Your task to perform on an android device: toggle airplane mode Image 0: 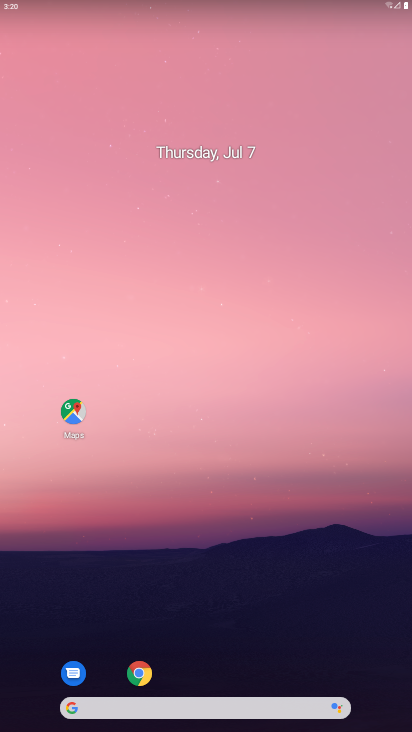
Step 0: drag from (246, 700) to (291, 0)
Your task to perform on an android device: toggle airplane mode Image 1: 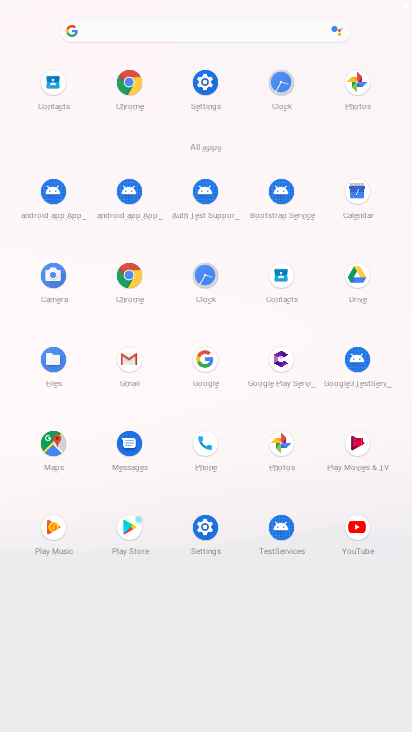
Step 1: click (196, 80)
Your task to perform on an android device: toggle airplane mode Image 2: 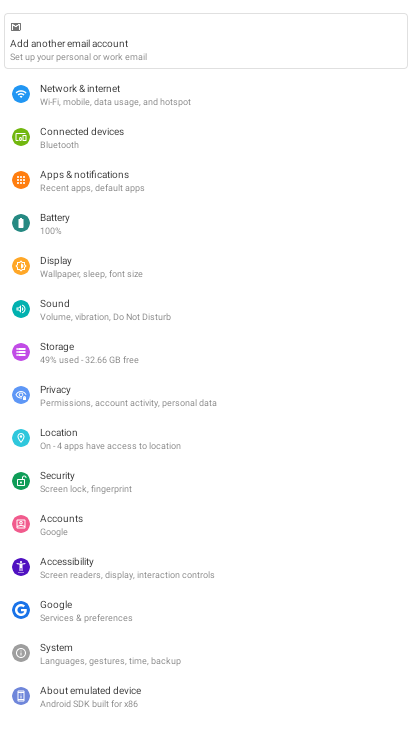
Step 2: click (119, 99)
Your task to perform on an android device: toggle airplane mode Image 3: 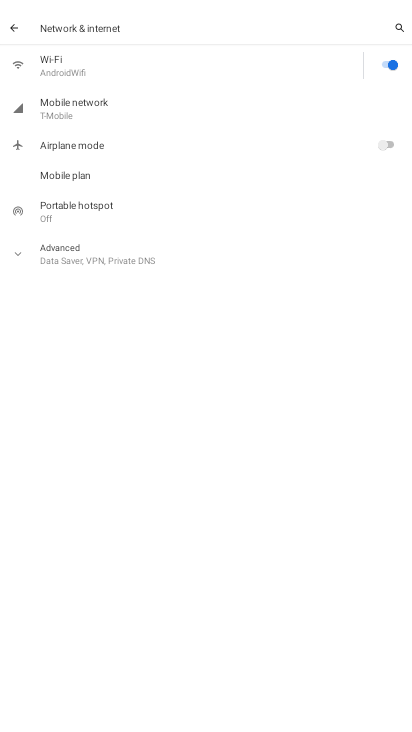
Step 3: click (391, 142)
Your task to perform on an android device: toggle airplane mode Image 4: 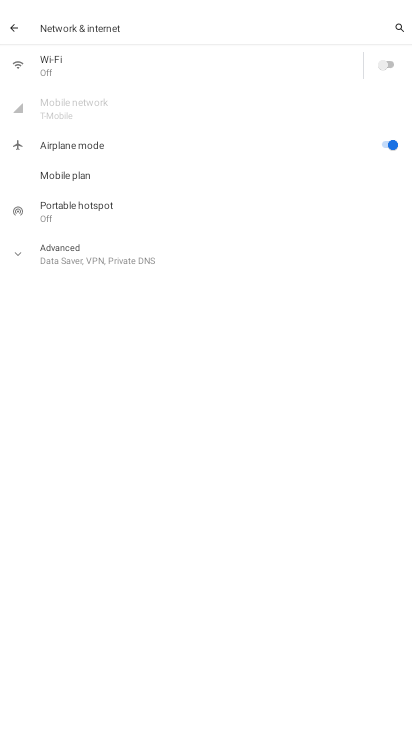
Step 4: click (385, 143)
Your task to perform on an android device: toggle airplane mode Image 5: 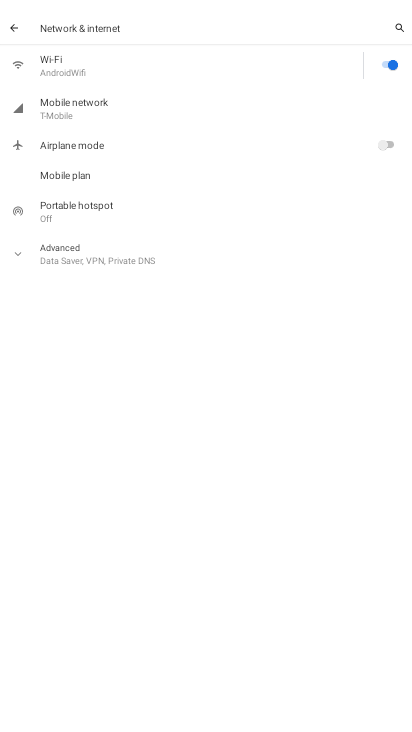
Step 5: task complete